Your task to perform on an android device: turn on wifi Image 0: 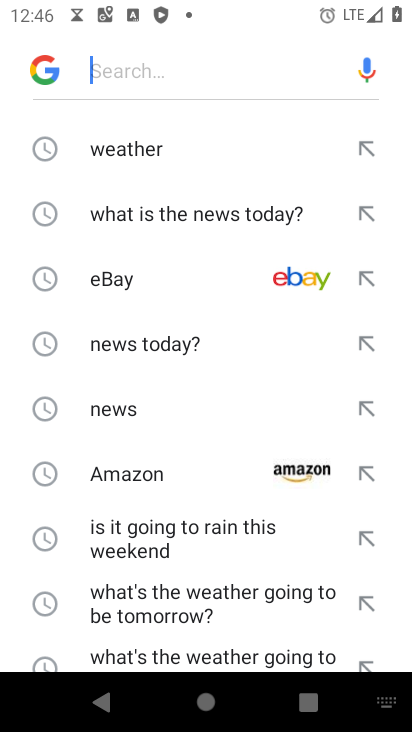
Step 0: press home button
Your task to perform on an android device: turn on wifi Image 1: 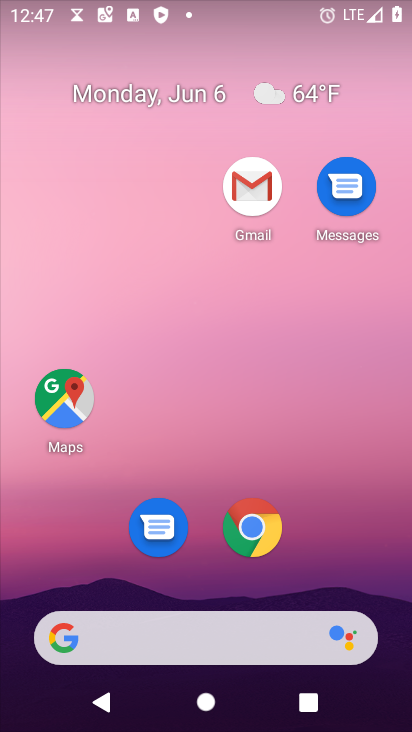
Step 1: drag from (355, 561) to (378, 2)
Your task to perform on an android device: turn on wifi Image 2: 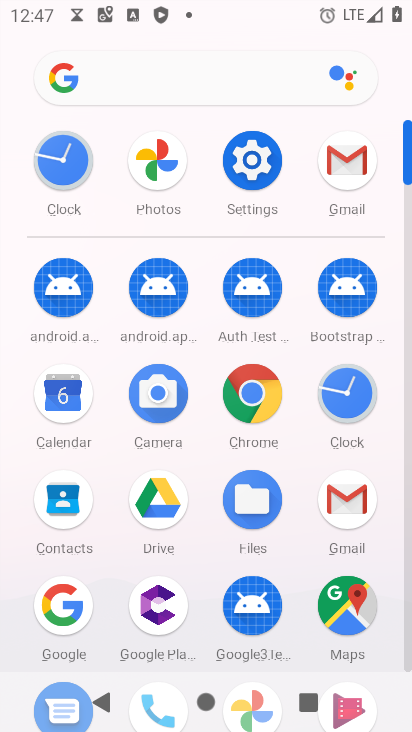
Step 2: click (267, 162)
Your task to perform on an android device: turn on wifi Image 3: 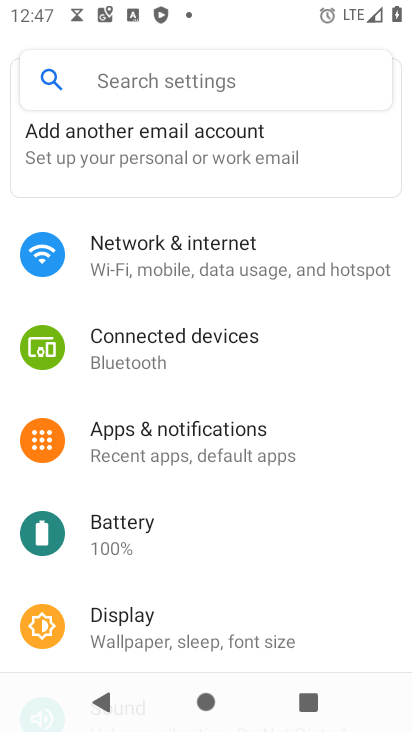
Step 3: click (220, 261)
Your task to perform on an android device: turn on wifi Image 4: 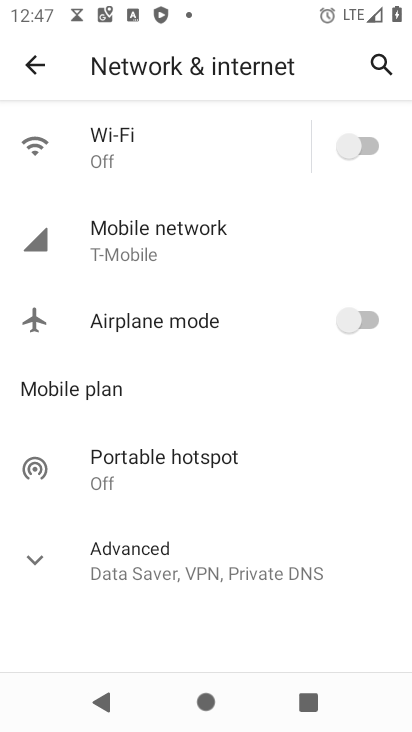
Step 4: click (372, 147)
Your task to perform on an android device: turn on wifi Image 5: 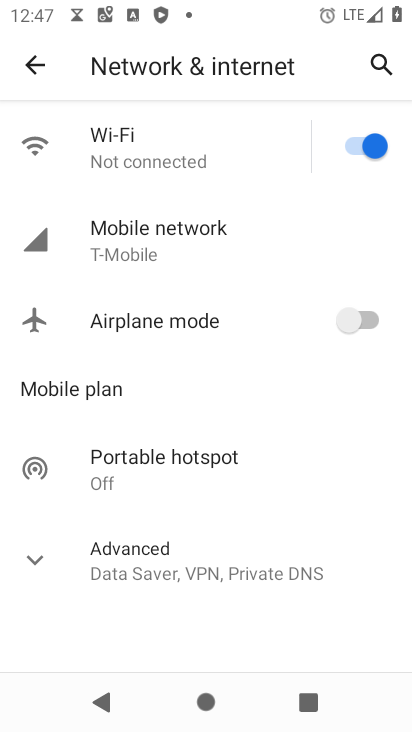
Step 5: task complete